Your task to perform on an android device: turn on location history Image 0: 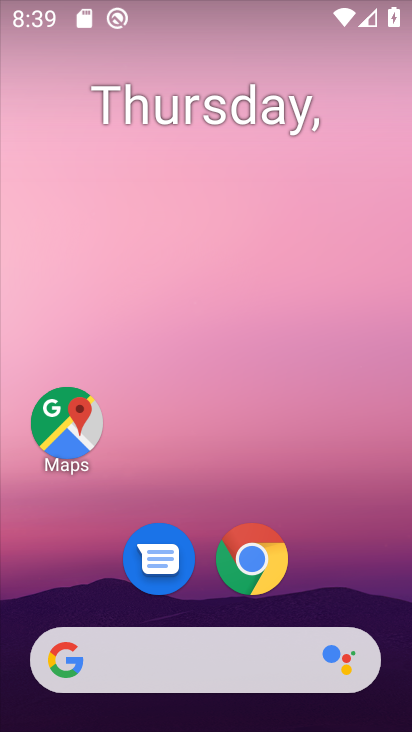
Step 0: drag from (49, 619) to (221, 167)
Your task to perform on an android device: turn on location history Image 1: 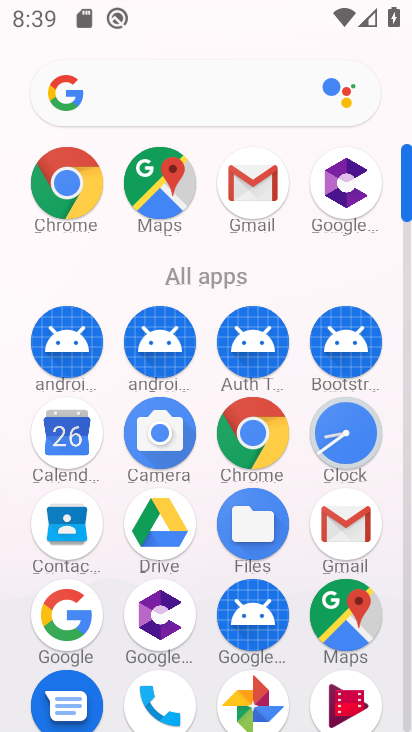
Step 1: drag from (122, 637) to (182, 277)
Your task to perform on an android device: turn on location history Image 2: 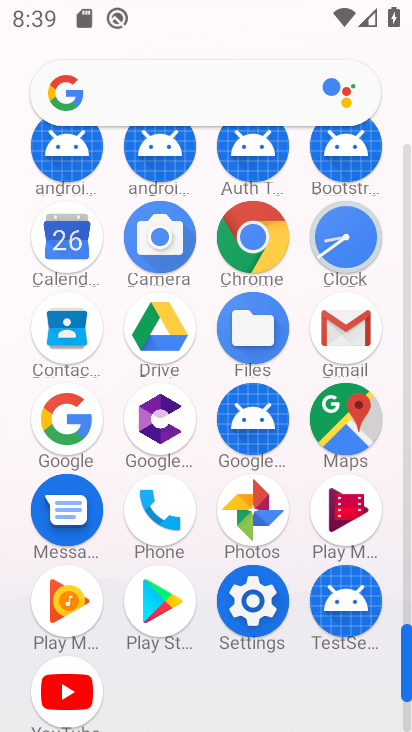
Step 2: click (248, 595)
Your task to perform on an android device: turn on location history Image 3: 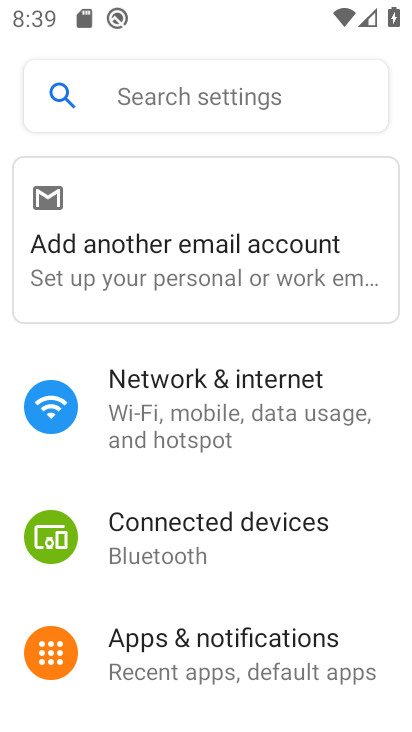
Step 3: drag from (110, 623) to (336, 144)
Your task to perform on an android device: turn on location history Image 4: 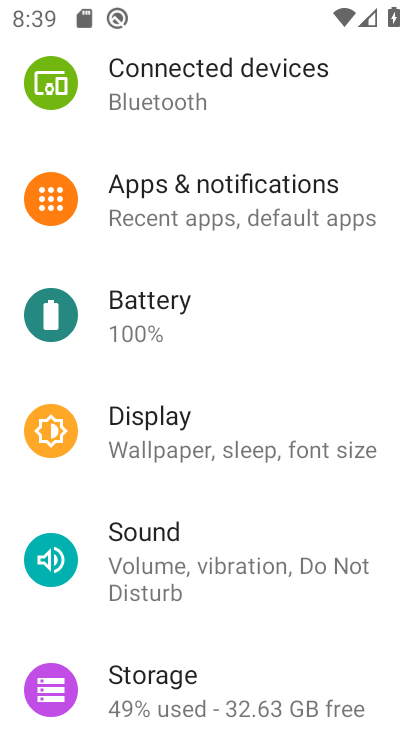
Step 4: drag from (167, 541) to (310, 134)
Your task to perform on an android device: turn on location history Image 5: 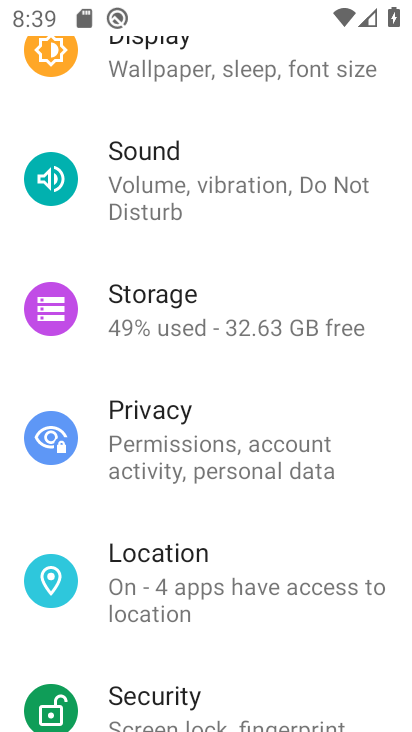
Step 5: click (183, 587)
Your task to perform on an android device: turn on location history Image 6: 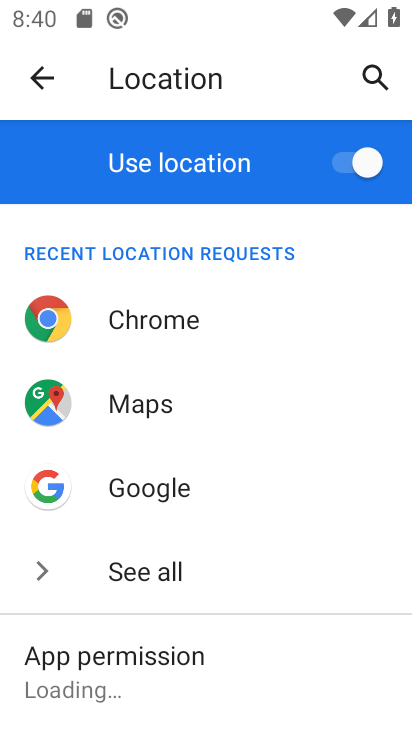
Step 6: drag from (184, 571) to (306, 204)
Your task to perform on an android device: turn on location history Image 7: 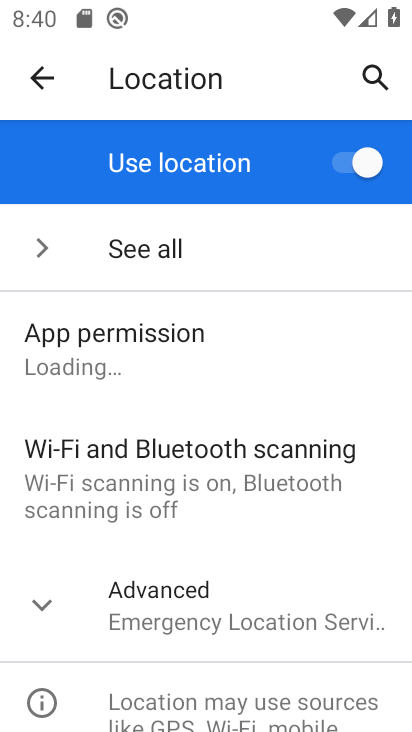
Step 7: click (166, 614)
Your task to perform on an android device: turn on location history Image 8: 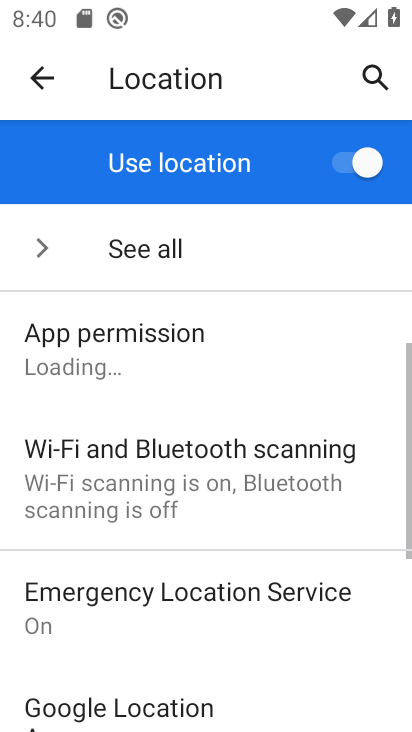
Step 8: drag from (166, 613) to (286, 185)
Your task to perform on an android device: turn on location history Image 9: 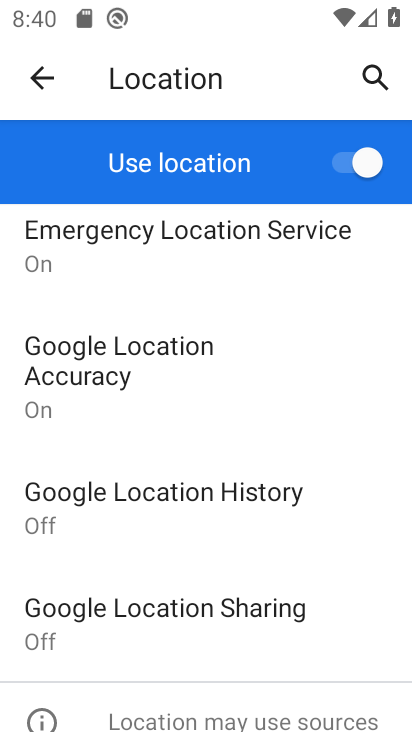
Step 9: click (207, 509)
Your task to perform on an android device: turn on location history Image 10: 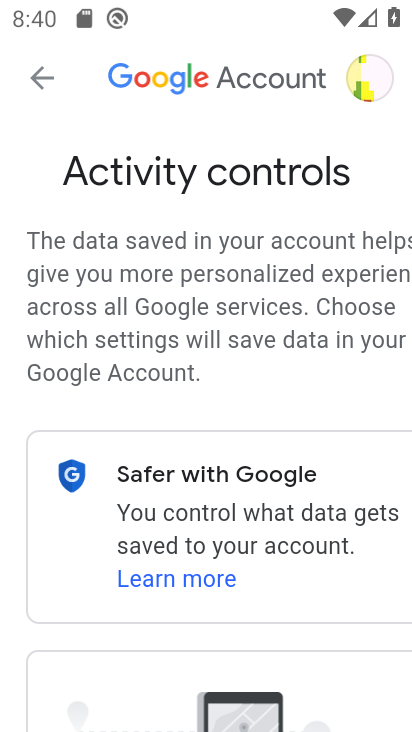
Step 10: drag from (132, 527) to (272, 133)
Your task to perform on an android device: turn on location history Image 11: 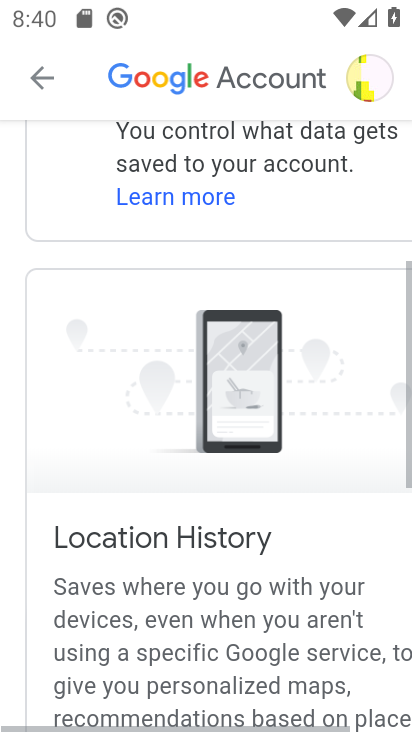
Step 11: drag from (181, 494) to (346, 185)
Your task to perform on an android device: turn on location history Image 12: 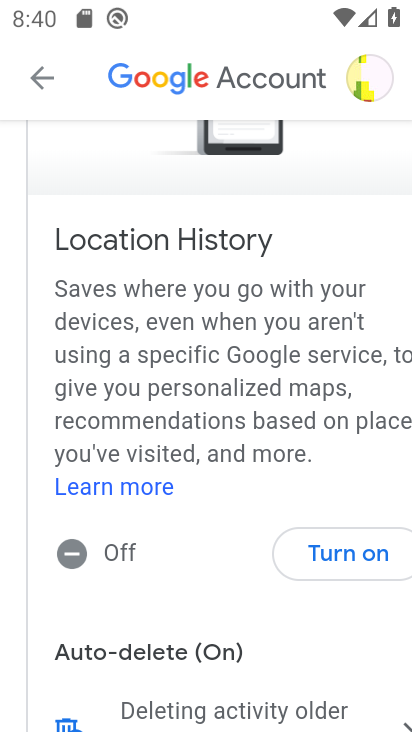
Step 12: click (369, 558)
Your task to perform on an android device: turn on location history Image 13: 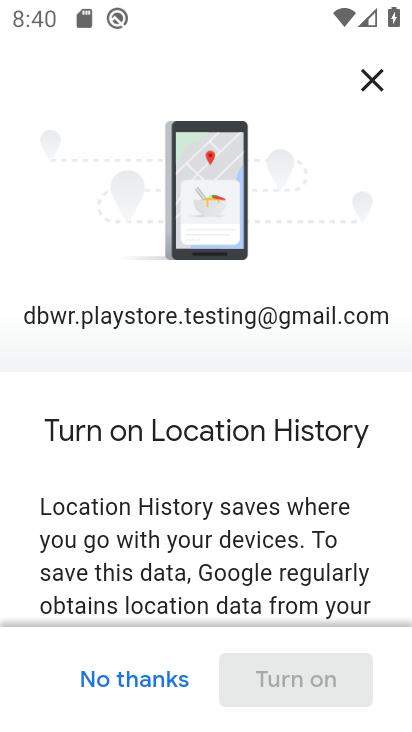
Step 13: drag from (170, 511) to (295, 72)
Your task to perform on an android device: turn on location history Image 14: 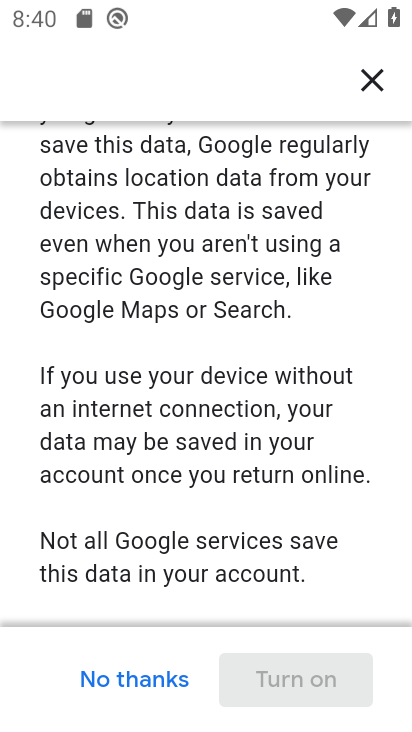
Step 14: drag from (116, 464) to (294, 49)
Your task to perform on an android device: turn on location history Image 15: 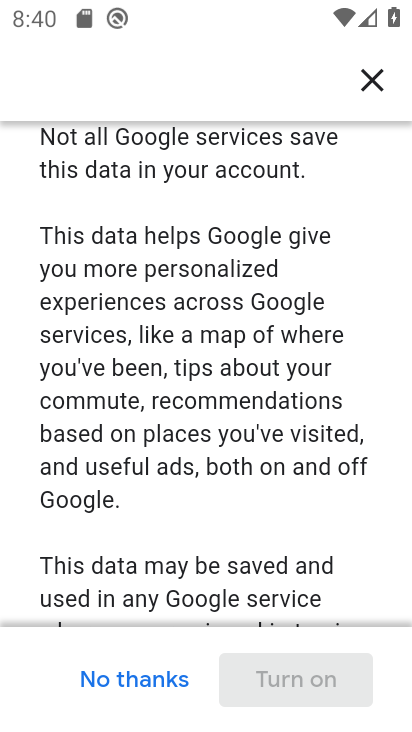
Step 15: drag from (260, 351) to (370, 39)
Your task to perform on an android device: turn on location history Image 16: 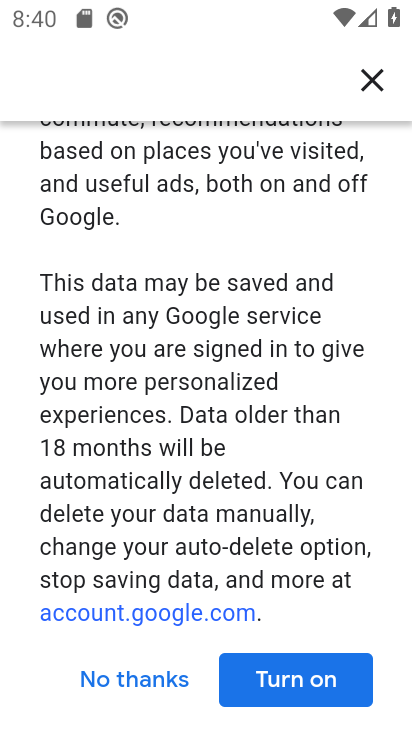
Step 16: drag from (202, 422) to (309, 98)
Your task to perform on an android device: turn on location history Image 17: 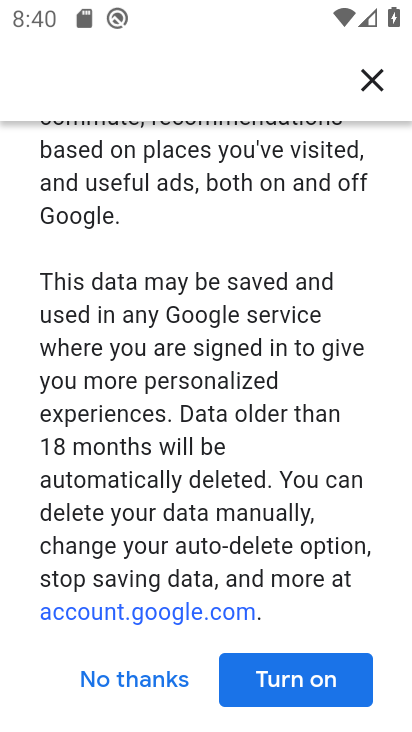
Step 17: click (288, 695)
Your task to perform on an android device: turn on location history Image 18: 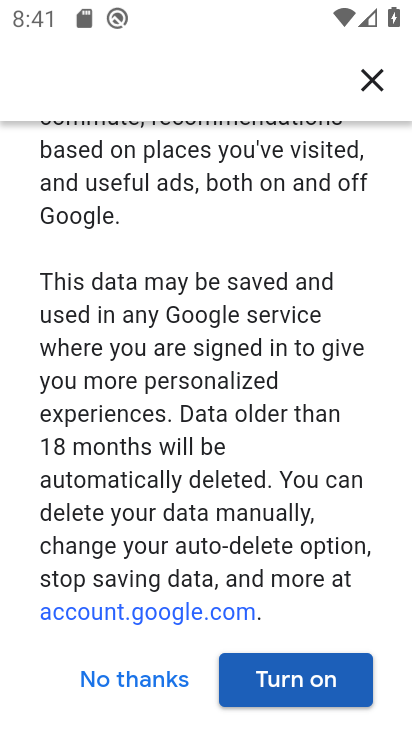
Step 18: click (299, 680)
Your task to perform on an android device: turn on location history Image 19: 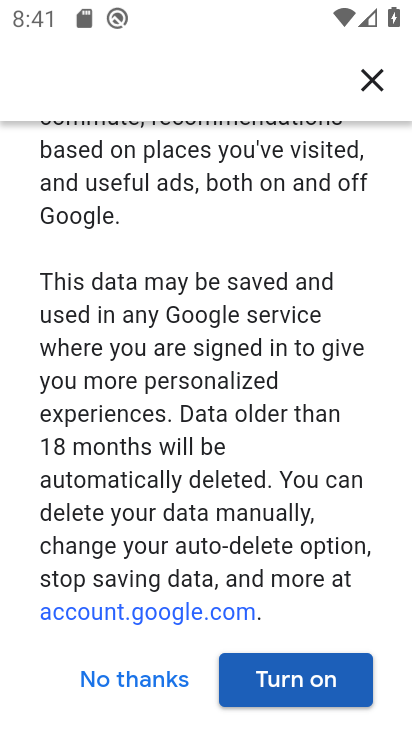
Step 19: click (298, 682)
Your task to perform on an android device: turn on location history Image 20: 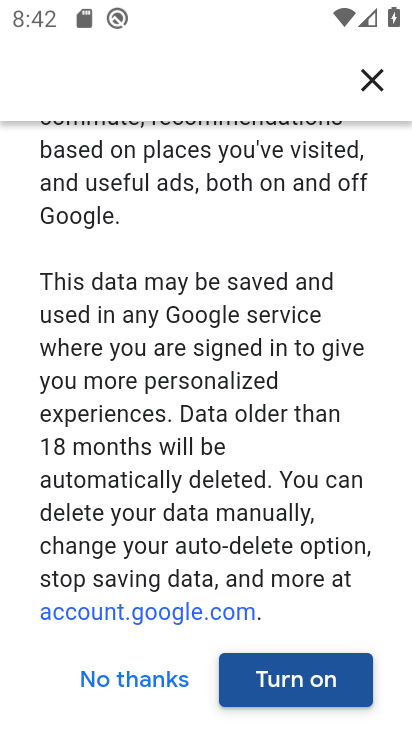
Step 20: click (344, 718)
Your task to perform on an android device: turn on location history Image 21: 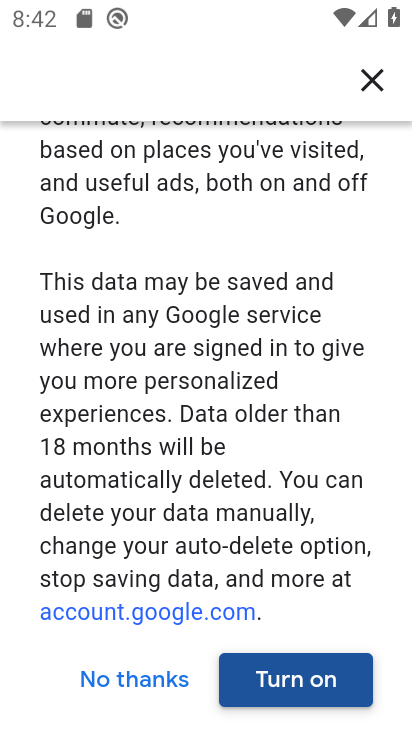
Step 21: click (341, 691)
Your task to perform on an android device: turn on location history Image 22: 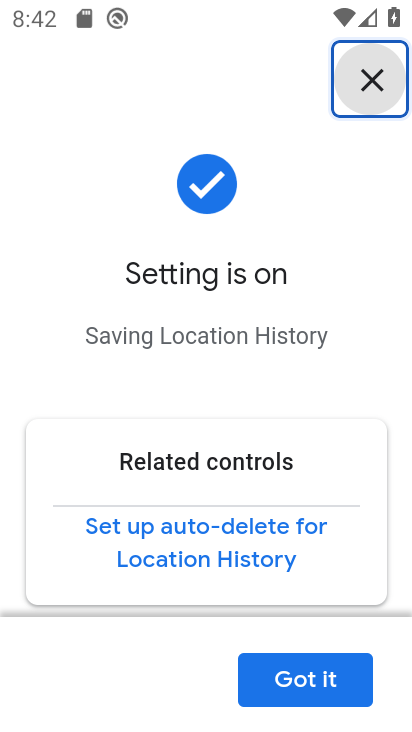
Step 22: click (336, 680)
Your task to perform on an android device: turn on location history Image 23: 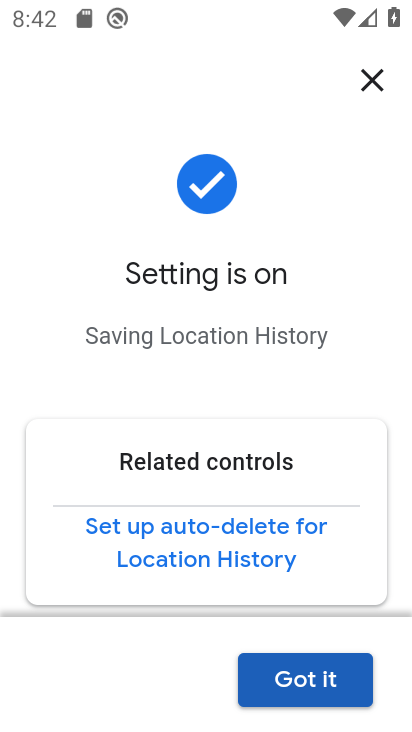
Step 23: click (351, 690)
Your task to perform on an android device: turn on location history Image 24: 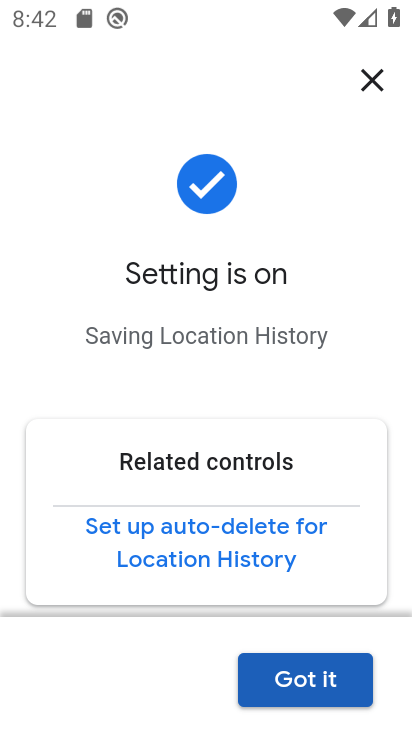
Step 24: click (352, 690)
Your task to perform on an android device: turn on location history Image 25: 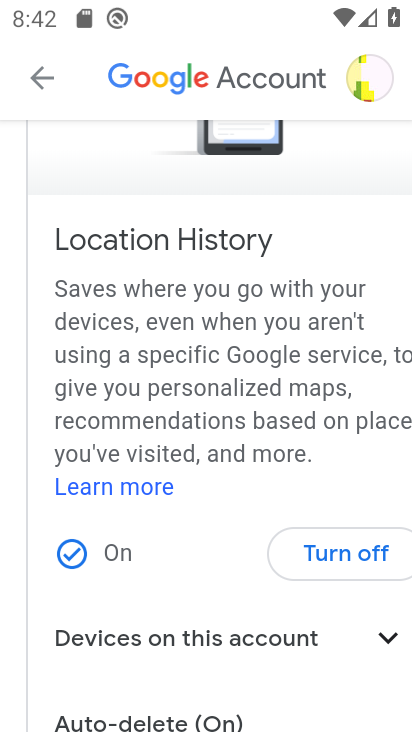
Step 25: task complete